Your task to perform on an android device: Search for pizza restaurants on Maps Image 0: 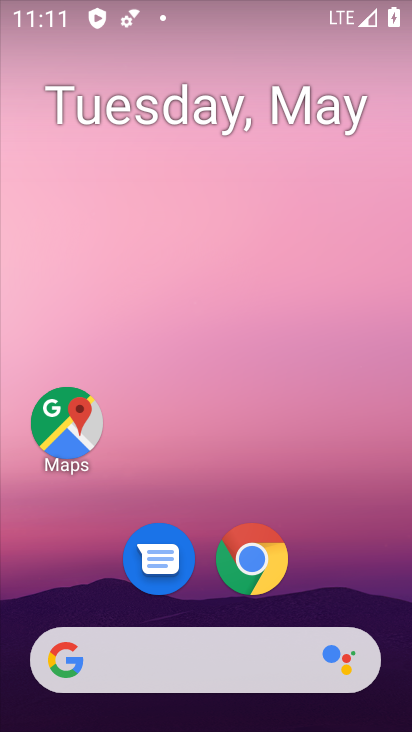
Step 0: drag from (366, 435) to (354, 176)
Your task to perform on an android device: Search for pizza restaurants on Maps Image 1: 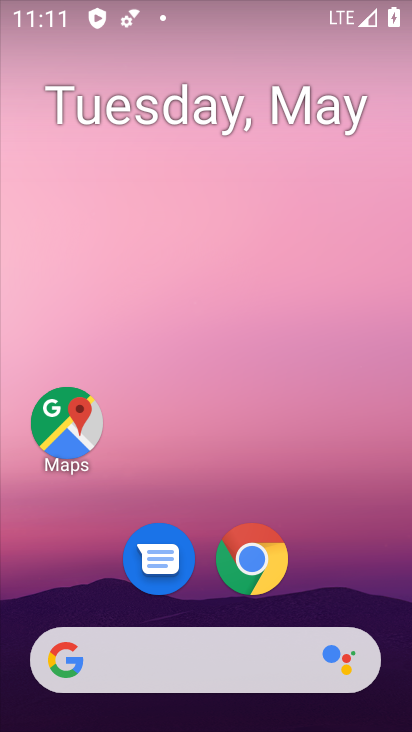
Step 1: drag from (360, 681) to (370, 269)
Your task to perform on an android device: Search for pizza restaurants on Maps Image 2: 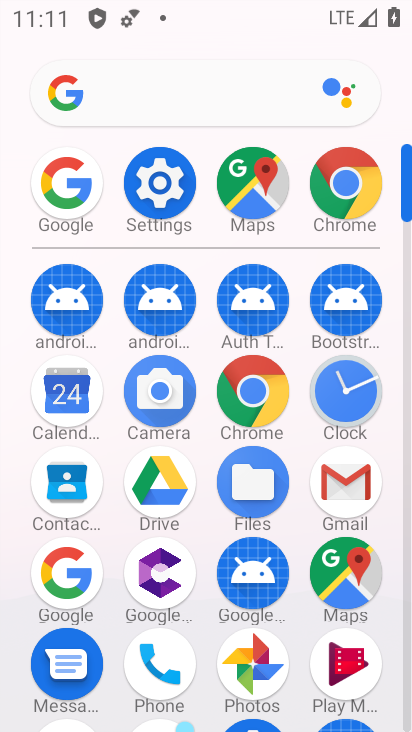
Step 2: click (339, 570)
Your task to perform on an android device: Search for pizza restaurants on Maps Image 3: 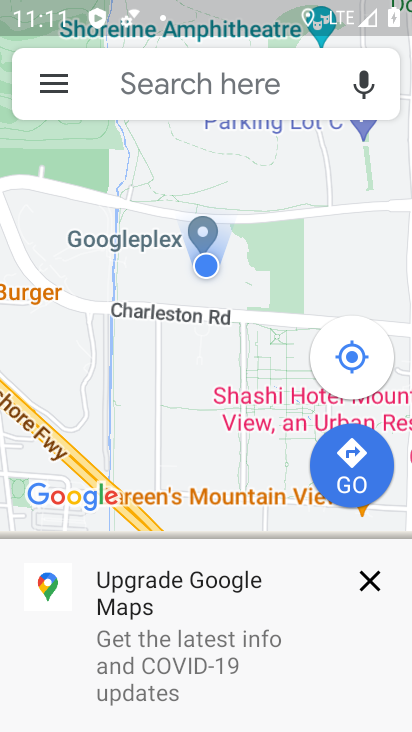
Step 3: click (225, 81)
Your task to perform on an android device: Search for pizza restaurants on Maps Image 4: 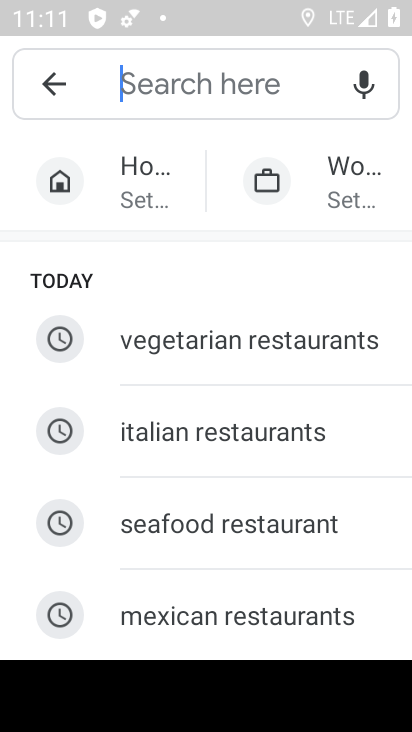
Step 4: type "pizza restaurants "
Your task to perform on an android device: Search for pizza restaurants on Maps Image 5: 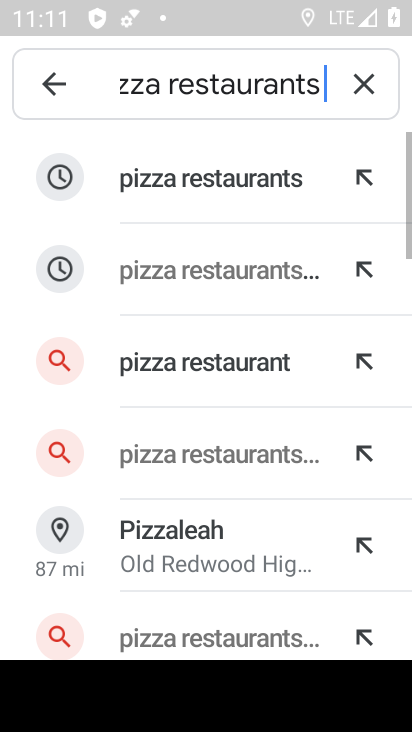
Step 5: click (226, 190)
Your task to perform on an android device: Search for pizza restaurants on Maps Image 6: 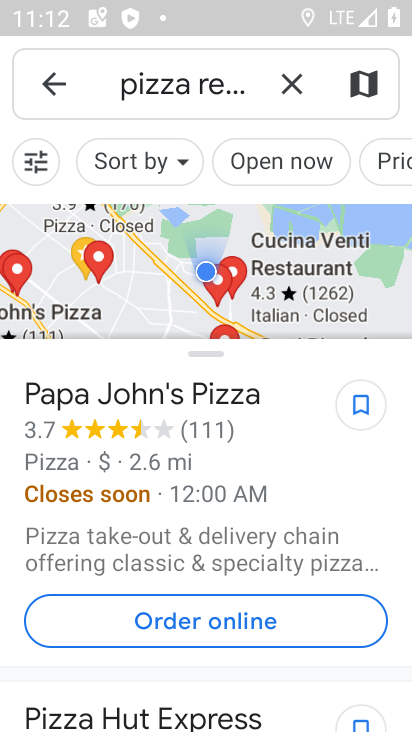
Step 6: task complete